Your task to perform on an android device: Show me the alarms in the clock app Image 0: 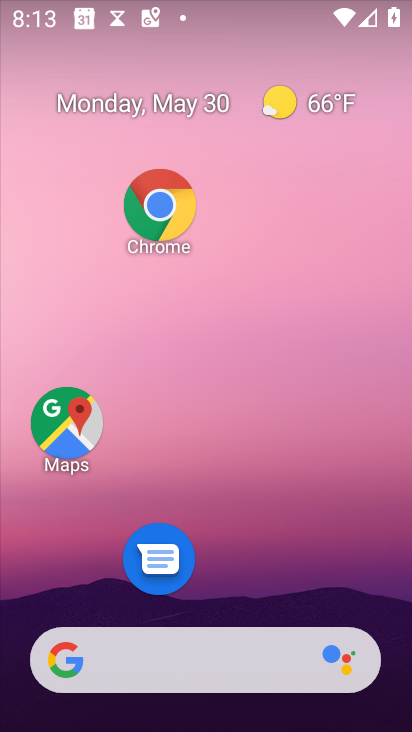
Step 0: drag from (297, 643) to (217, 123)
Your task to perform on an android device: Show me the alarms in the clock app Image 1: 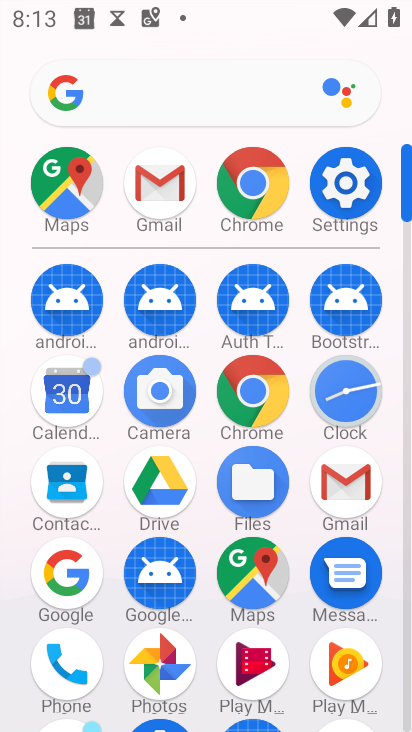
Step 1: click (317, 469)
Your task to perform on an android device: Show me the alarms in the clock app Image 2: 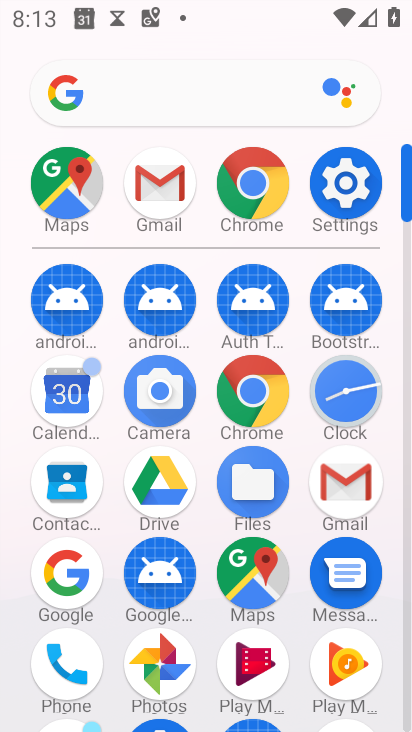
Step 2: click (342, 478)
Your task to perform on an android device: Show me the alarms in the clock app Image 3: 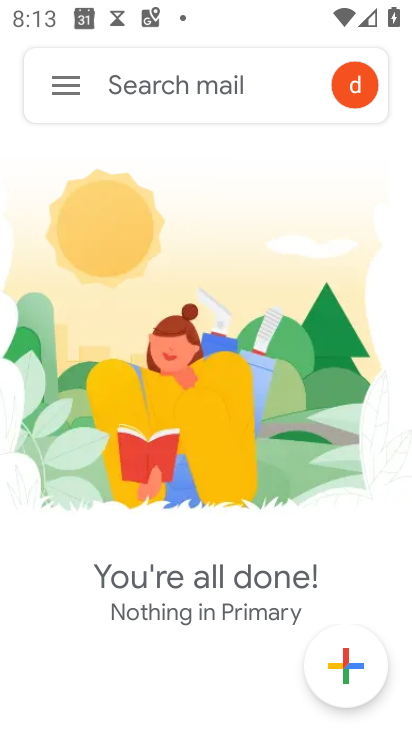
Step 3: press back button
Your task to perform on an android device: Show me the alarms in the clock app Image 4: 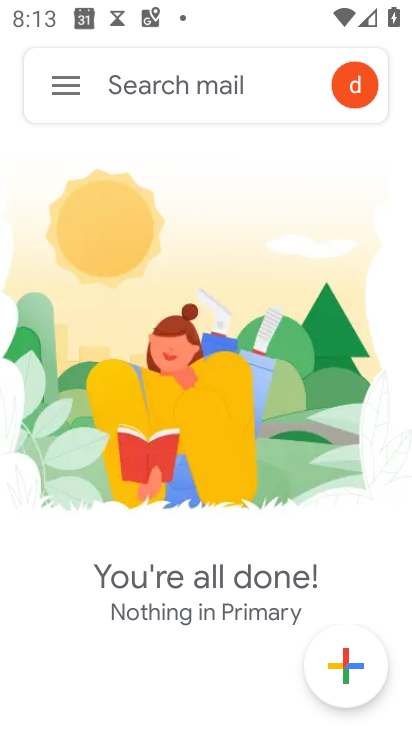
Step 4: press back button
Your task to perform on an android device: Show me the alarms in the clock app Image 5: 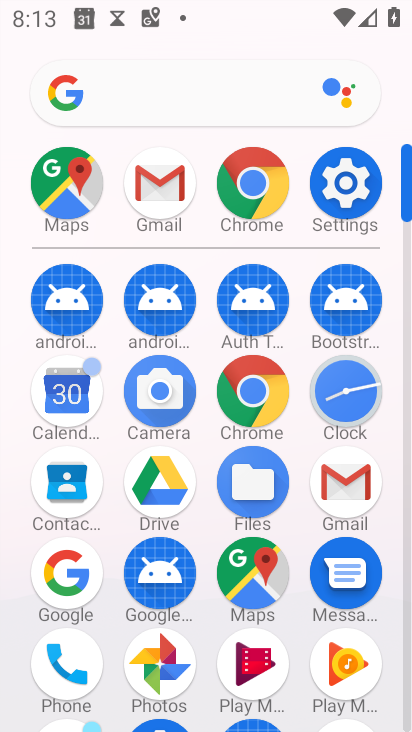
Step 5: click (326, 387)
Your task to perform on an android device: Show me the alarms in the clock app Image 6: 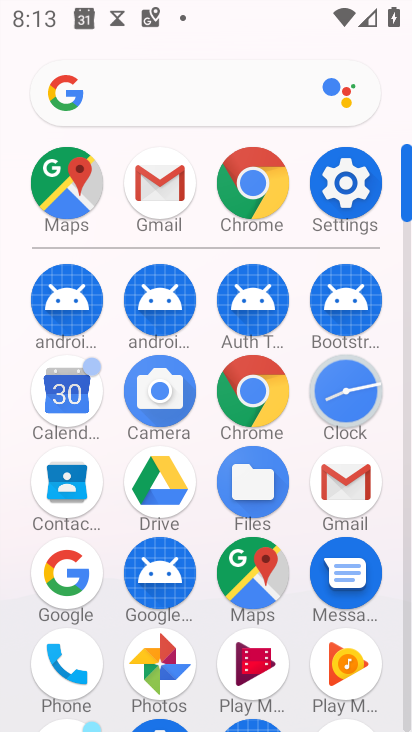
Step 6: click (326, 387)
Your task to perform on an android device: Show me the alarms in the clock app Image 7: 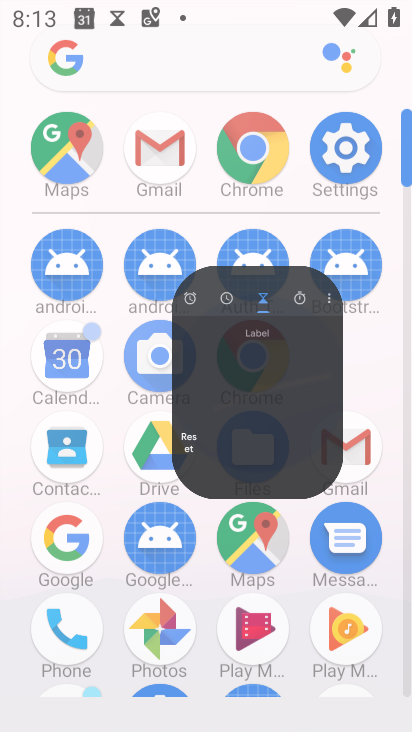
Step 7: click (329, 386)
Your task to perform on an android device: Show me the alarms in the clock app Image 8: 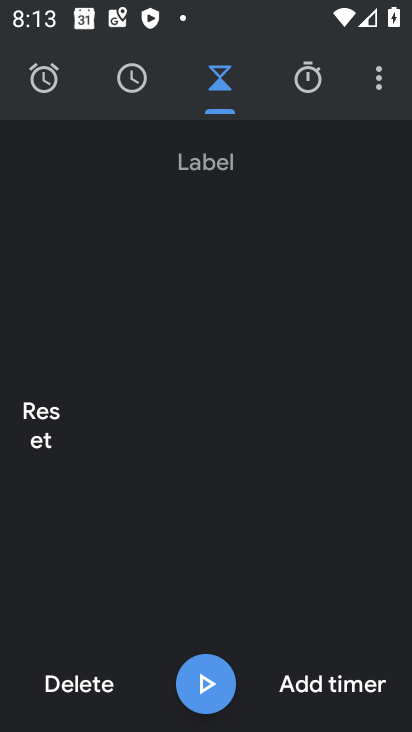
Step 8: click (49, 78)
Your task to perform on an android device: Show me the alarms in the clock app Image 9: 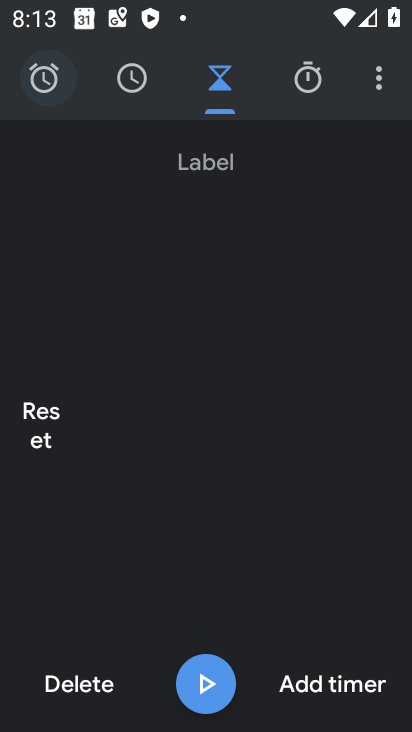
Step 9: click (50, 78)
Your task to perform on an android device: Show me the alarms in the clock app Image 10: 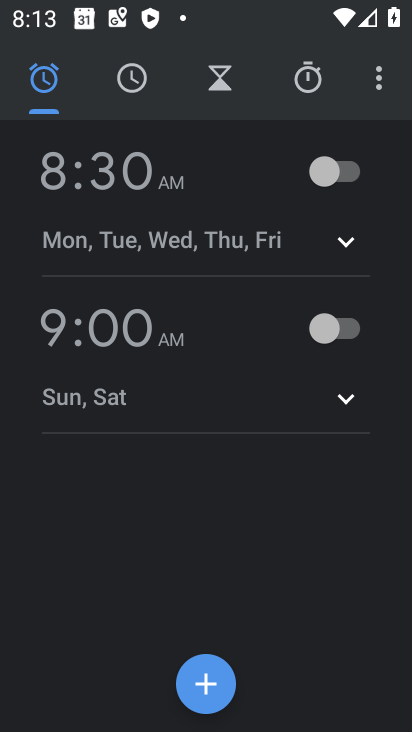
Step 10: click (329, 166)
Your task to perform on an android device: Show me the alarms in the clock app Image 11: 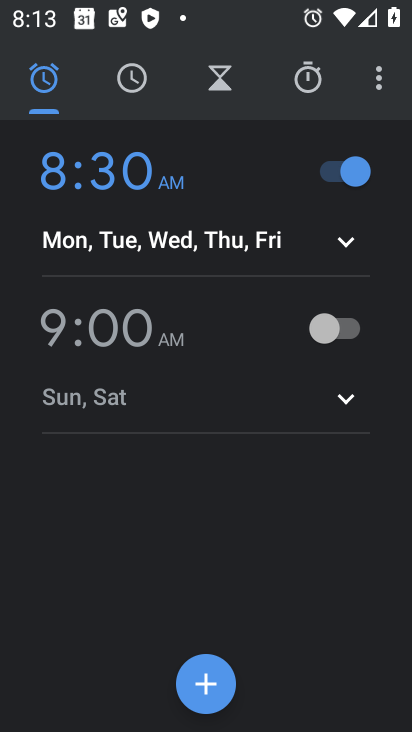
Step 11: task complete